Your task to perform on an android device: Open Amazon Image 0: 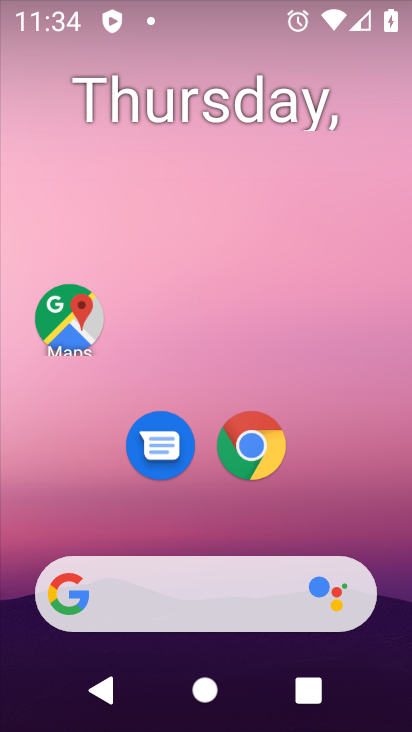
Step 0: click (254, 470)
Your task to perform on an android device: Open Amazon Image 1: 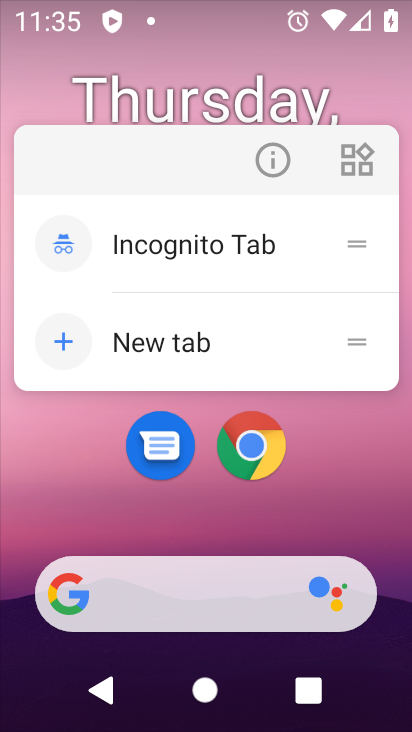
Step 1: click (250, 460)
Your task to perform on an android device: Open Amazon Image 2: 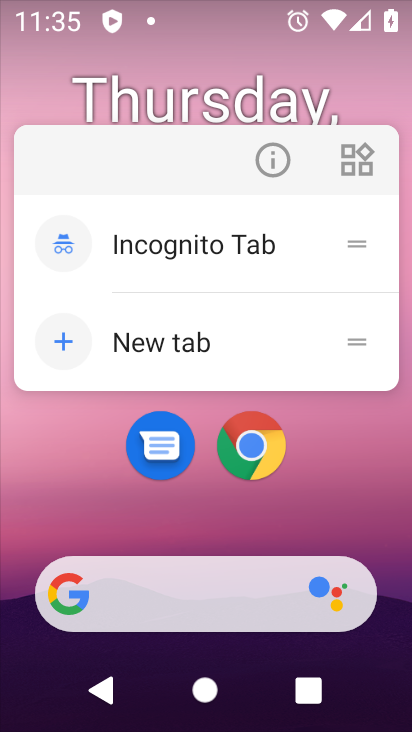
Step 2: click (240, 433)
Your task to perform on an android device: Open Amazon Image 3: 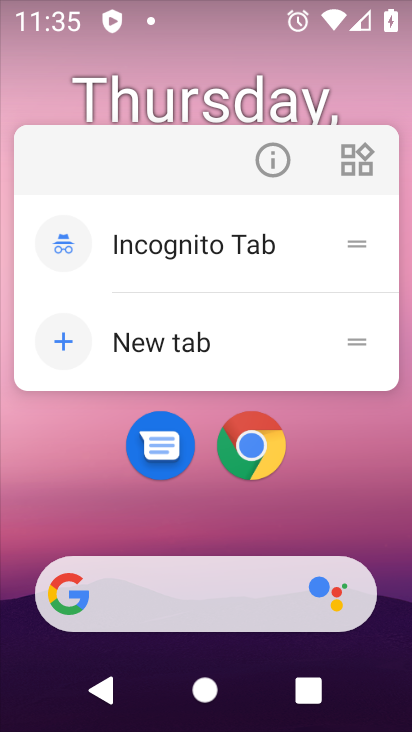
Step 3: click (240, 431)
Your task to perform on an android device: Open Amazon Image 4: 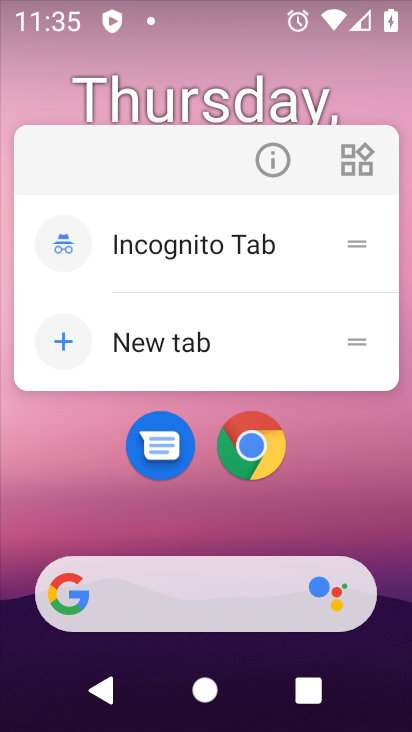
Step 4: click (240, 431)
Your task to perform on an android device: Open Amazon Image 5: 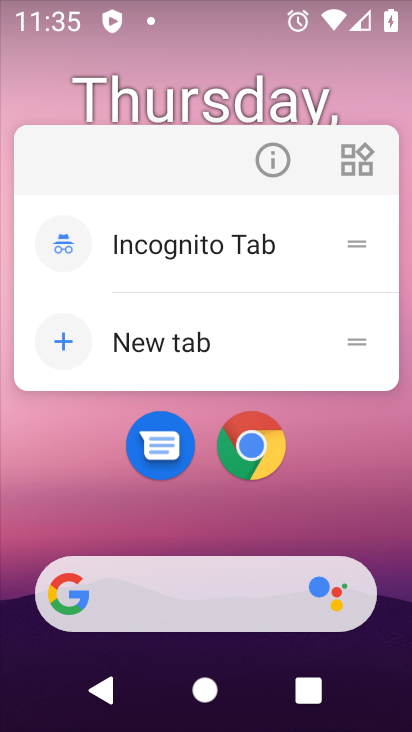
Step 5: click (240, 430)
Your task to perform on an android device: Open Amazon Image 6: 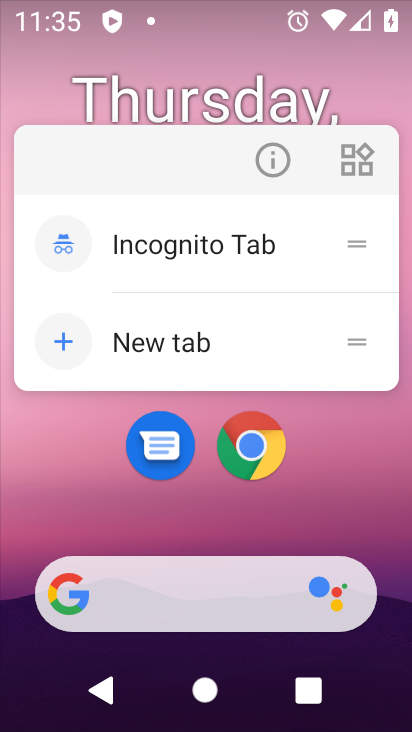
Step 6: click (240, 430)
Your task to perform on an android device: Open Amazon Image 7: 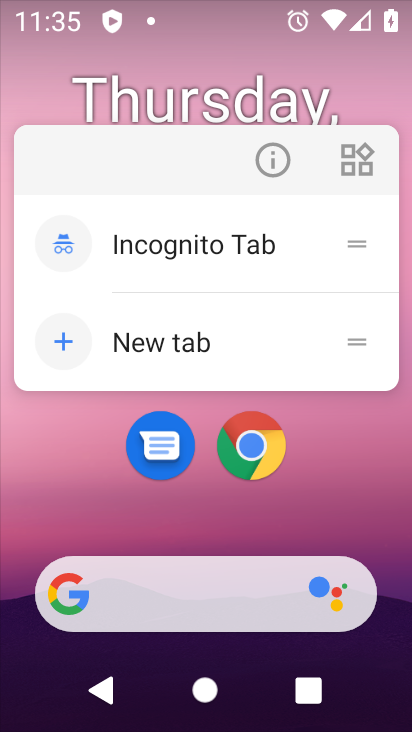
Step 7: click (243, 442)
Your task to perform on an android device: Open Amazon Image 8: 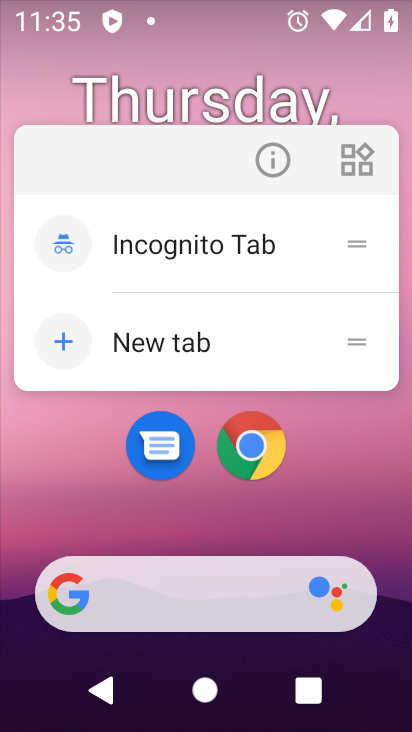
Step 8: click (243, 441)
Your task to perform on an android device: Open Amazon Image 9: 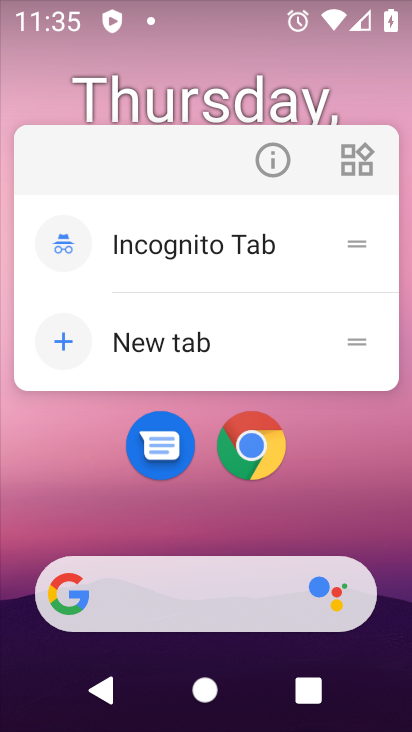
Step 9: click (243, 440)
Your task to perform on an android device: Open Amazon Image 10: 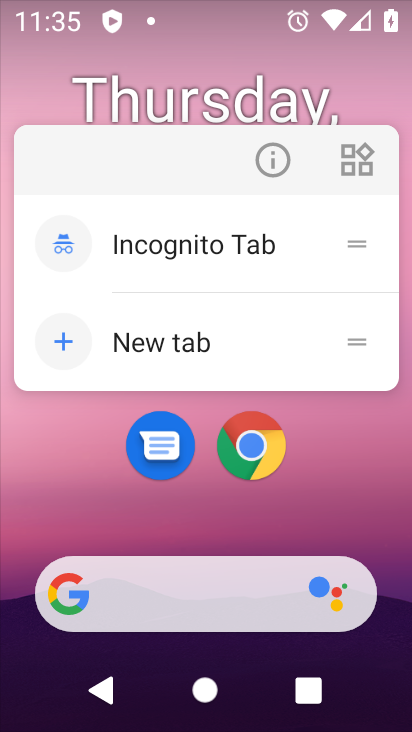
Step 10: click (243, 439)
Your task to perform on an android device: Open Amazon Image 11: 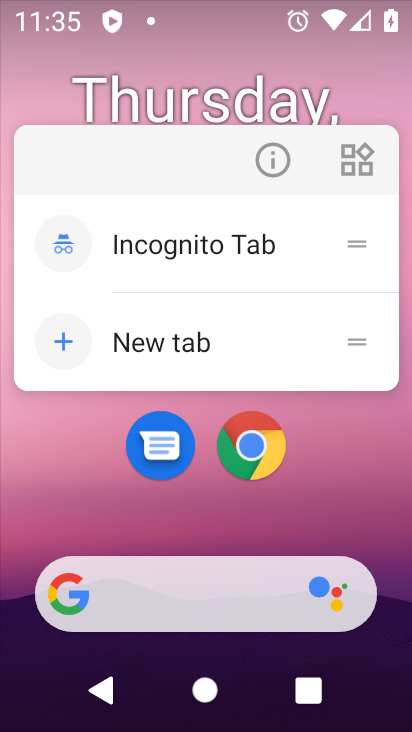
Step 11: click (245, 436)
Your task to perform on an android device: Open Amazon Image 12: 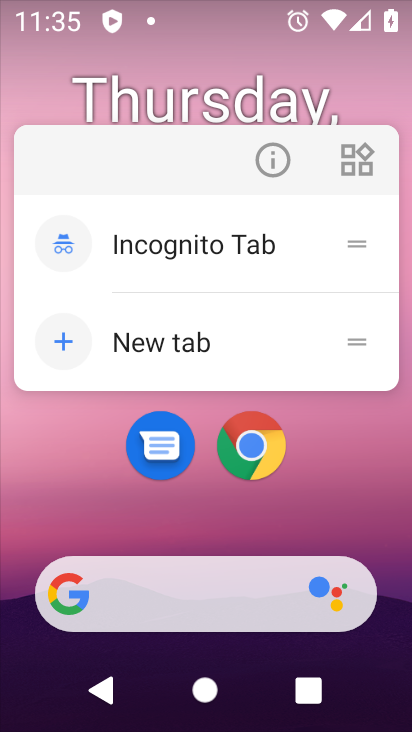
Step 12: click (245, 436)
Your task to perform on an android device: Open Amazon Image 13: 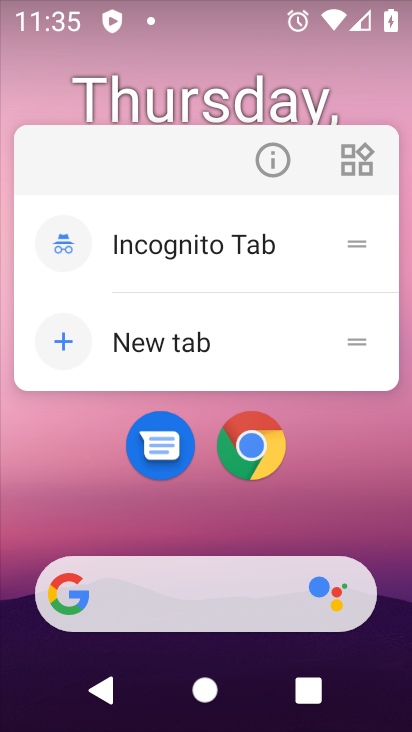
Step 13: click (245, 436)
Your task to perform on an android device: Open Amazon Image 14: 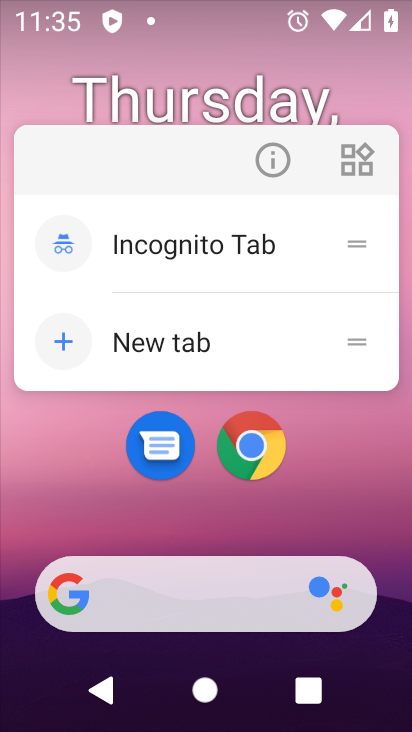
Step 14: click (246, 436)
Your task to perform on an android device: Open Amazon Image 15: 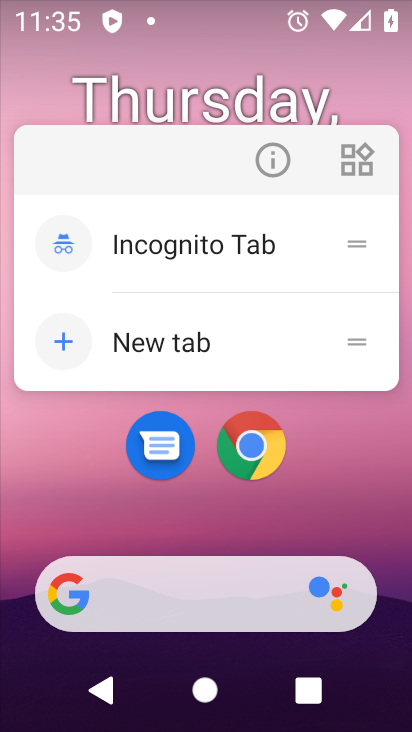
Step 15: click (246, 436)
Your task to perform on an android device: Open Amazon Image 16: 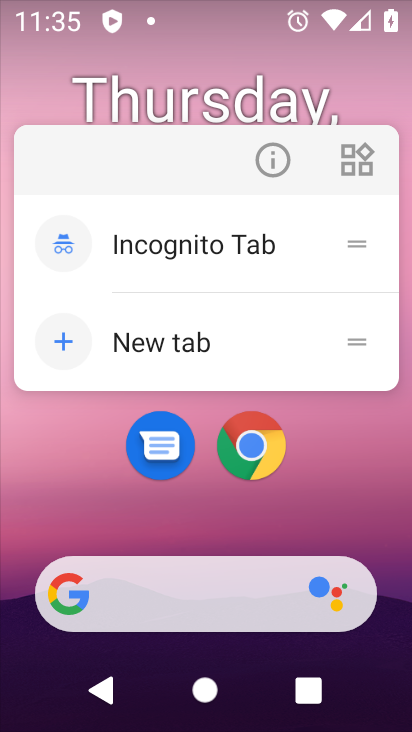
Step 16: click (246, 436)
Your task to perform on an android device: Open Amazon Image 17: 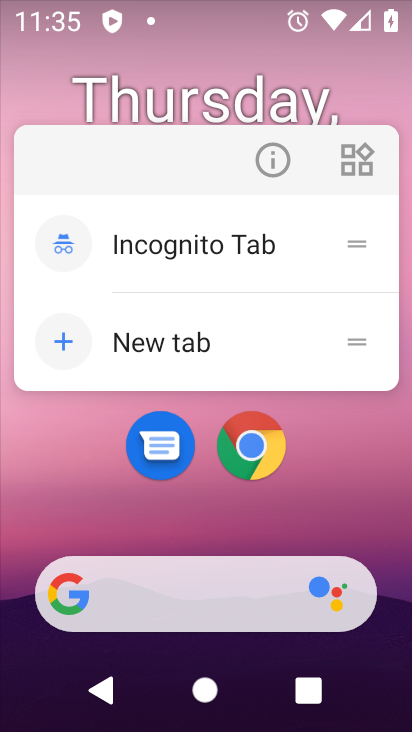
Step 17: click (246, 436)
Your task to perform on an android device: Open Amazon Image 18: 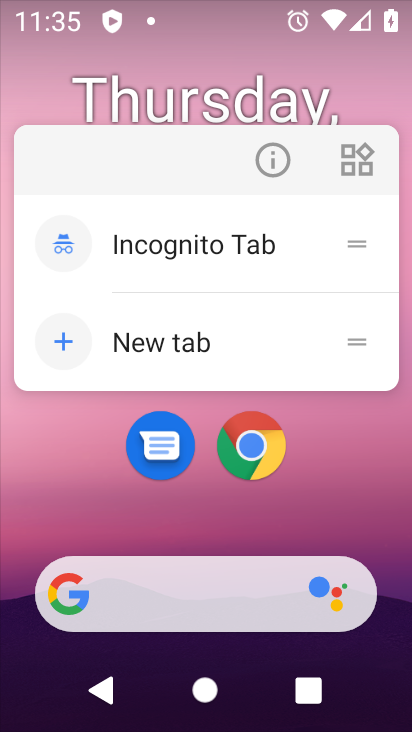
Step 18: click (246, 436)
Your task to perform on an android device: Open Amazon Image 19: 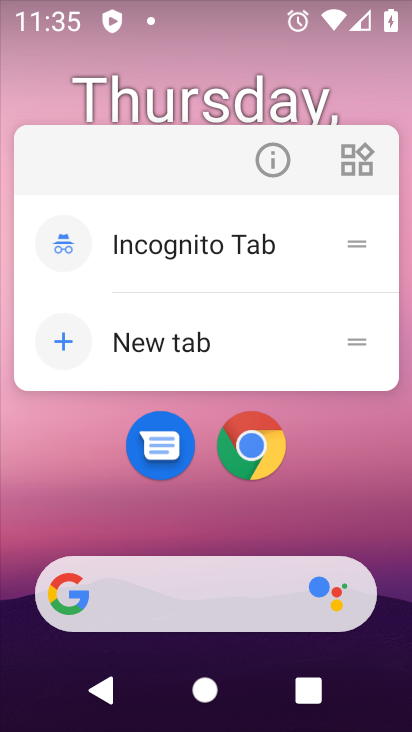
Step 19: click (246, 436)
Your task to perform on an android device: Open Amazon Image 20: 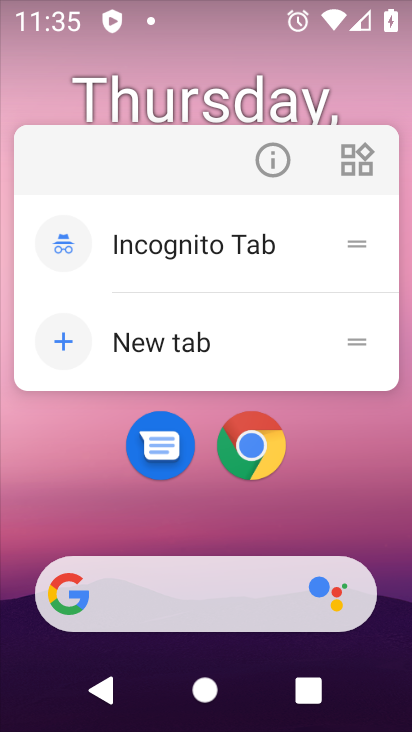
Step 20: click (246, 436)
Your task to perform on an android device: Open Amazon Image 21: 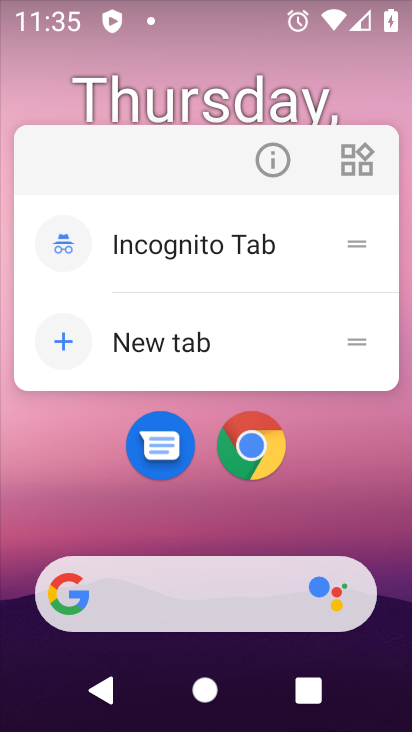
Step 21: click (246, 436)
Your task to perform on an android device: Open Amazon Image 22: 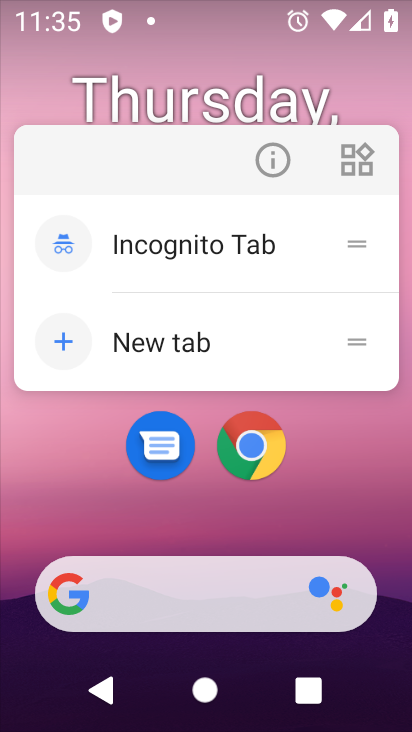
Step 22: click (246, 436)
Your task to perform on an android device: Open Amazon Image 23: 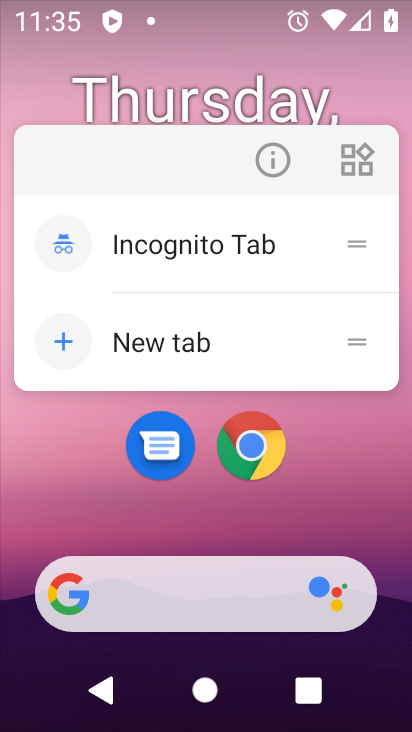
Step 23: click (246, 436)
Your task to perform on an android device: Open Amazon Image 24: 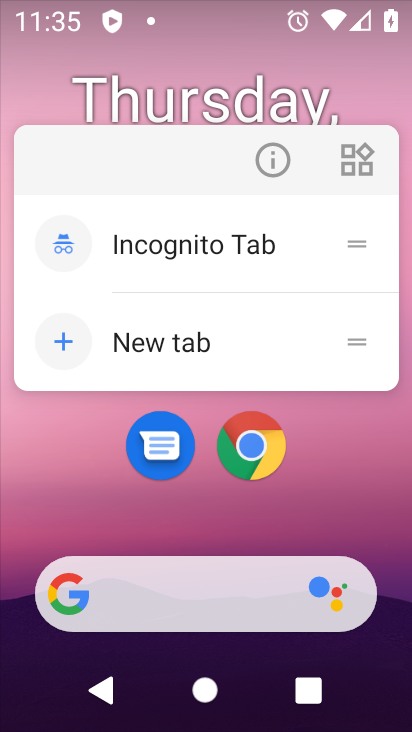
Step 24: click (246, 436)
Your task to perform on an android device: Open Amazon Image 25: 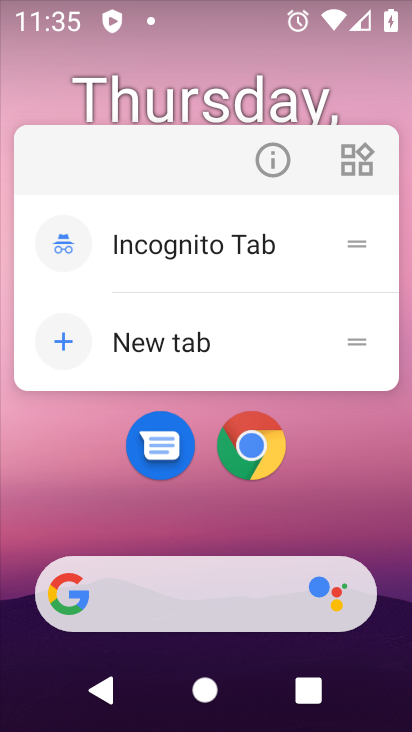
Step 25: click (246, 436)
Your task to perform on an android device: Open Amazon Image 26: 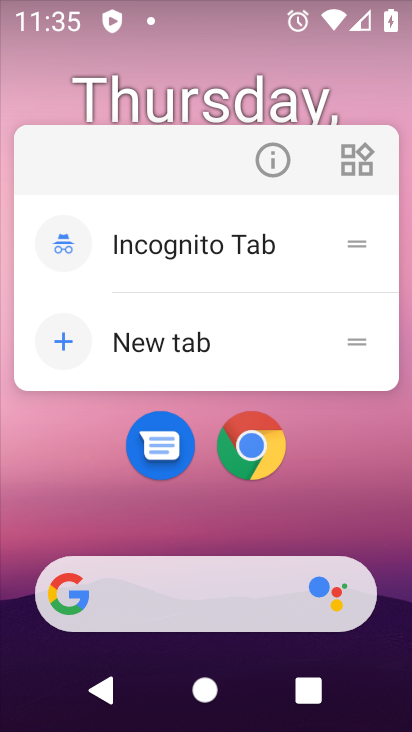
Step 26: click (246, 436)
Your task to perform on an android device: Open Amazon Image 27: 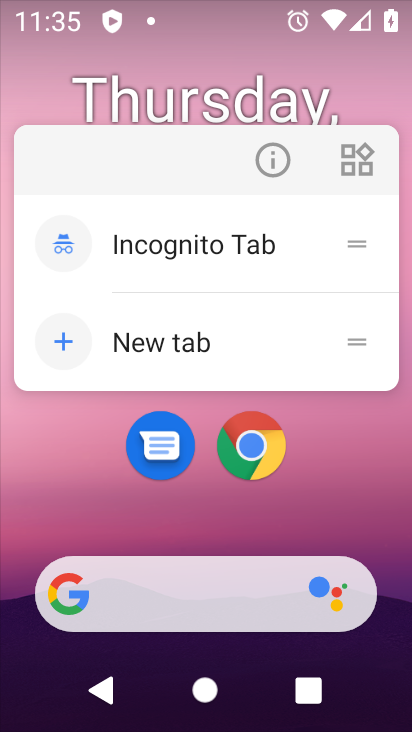
Step 27: click (246, 436)
Your task to perform on an android device: Open Amazon Image 28: 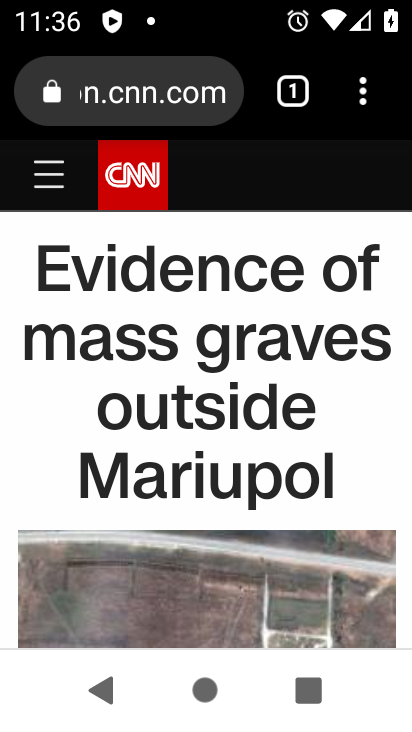
Step 28: click (359, 92)
Your task to perform on an android device: Open Amazon Image 29: 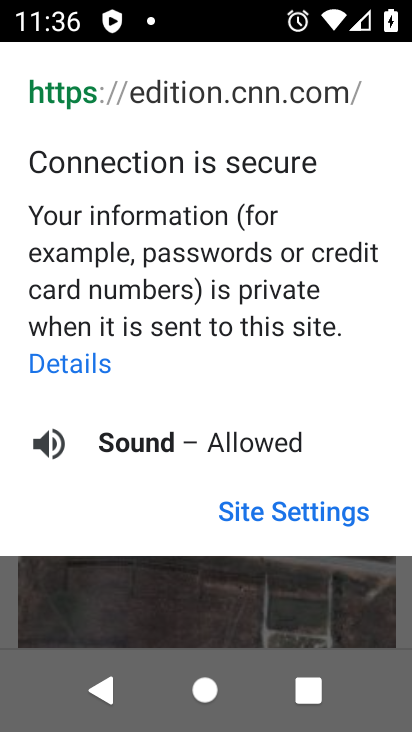
Step 29: press back button
Your task to perform on an android device: Open Amazon Image 30: 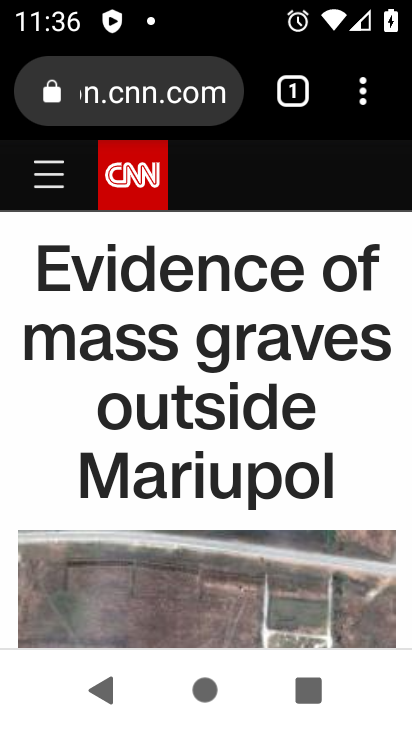
Step 30: drag from (361, 94) to (150, 191)
Your task to perform on an android device: Open Amazon Image 31: 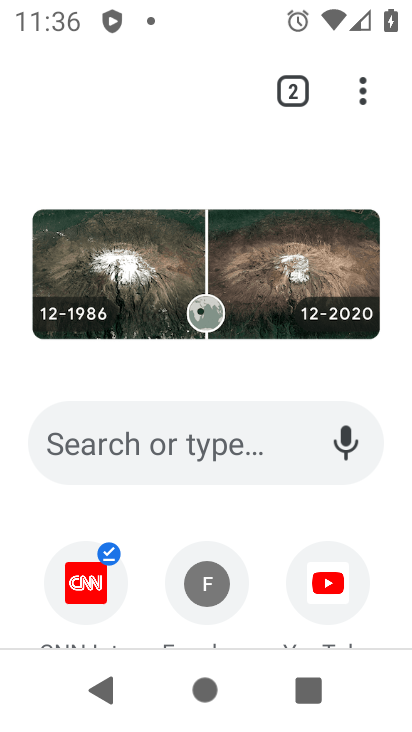
Step 31: drag from (223, 525) to (264, 135)
Your task to perform on an android device: Open Amazon Image 32: 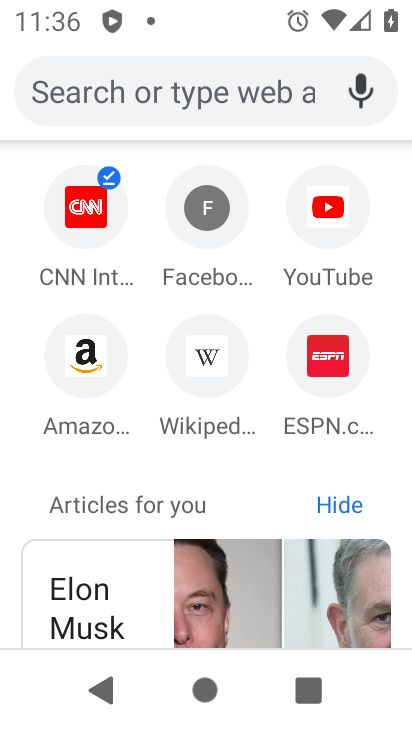
Step 32: click (88, 366)
Your task to perform on an android device: Open Amazon Image 33: 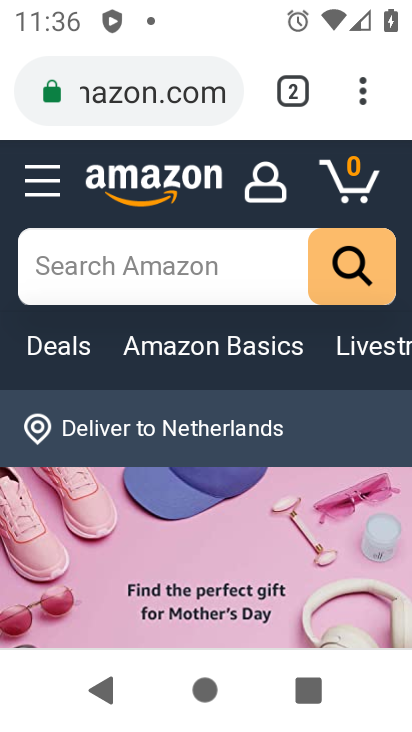
Step 33: task complete